Your task to perform on an android device: Go to location settings Image 0: 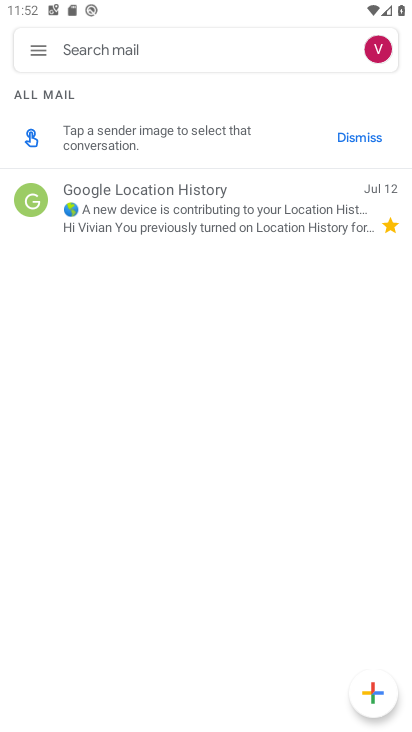
Step 0: press home button
Your task to perform on an android device: Go to location settings Image 1: 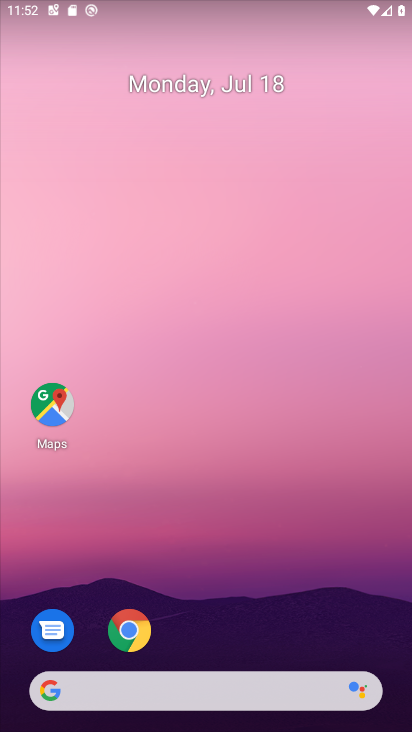
Step 1: drag from (207, 638) to (249, 97)
Your task to perform on an android device: Go to location settings Image 2: 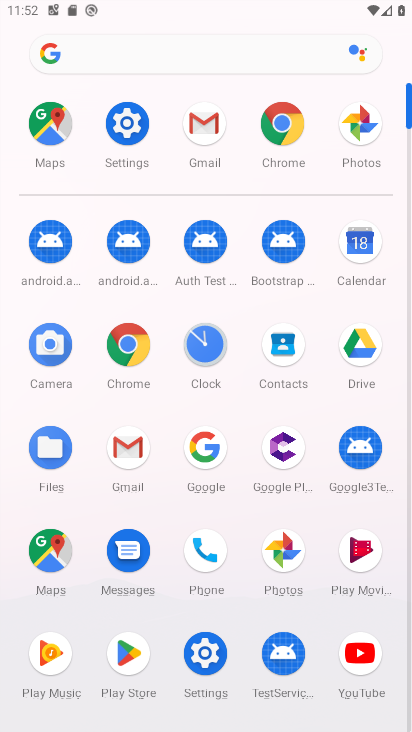
Step 2: click (130, 131)
Your task to perform on an android device: Go to location settings Image 3: 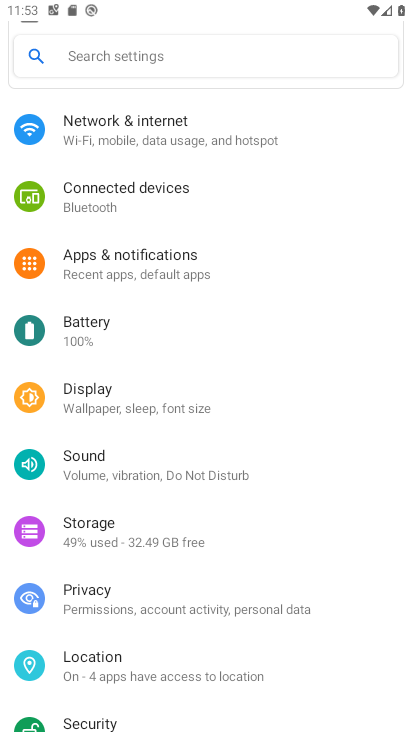
Step 3: click (131, 662)
Your task to perform on an android device: Go to location settings Image 4: 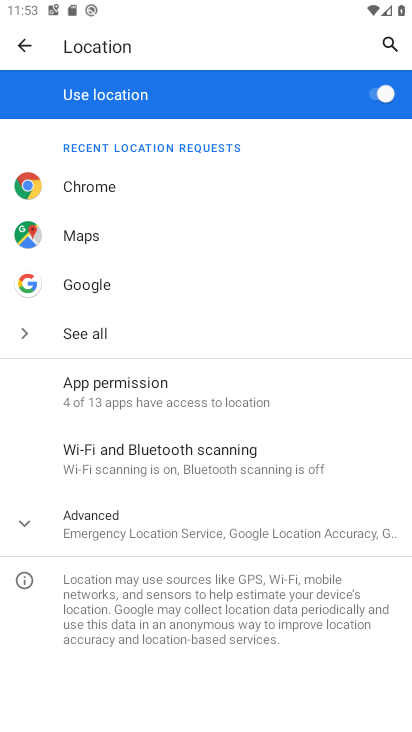
Step 4: task complete